Your task to perform on an android device: create a new album in the google photos Image 0: 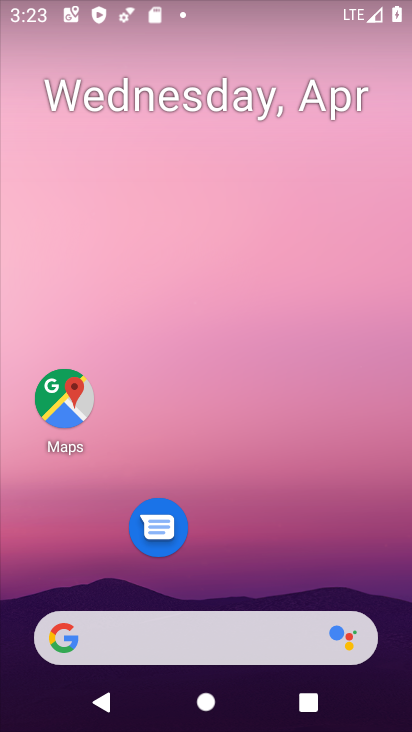
Step 0: drag from (222, 434) to (253, 101)
Your task to perform on an android device: create a new album in the google photos Image 1: 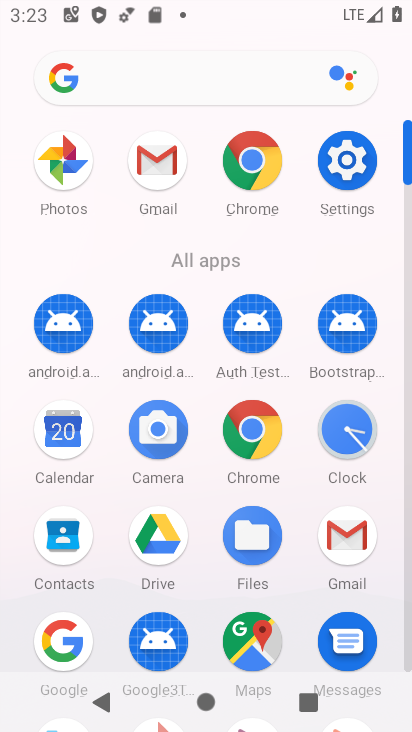
Step 1: click (67, 175)
Your task to perform on an android device: create a new album in the google photos Image 2: 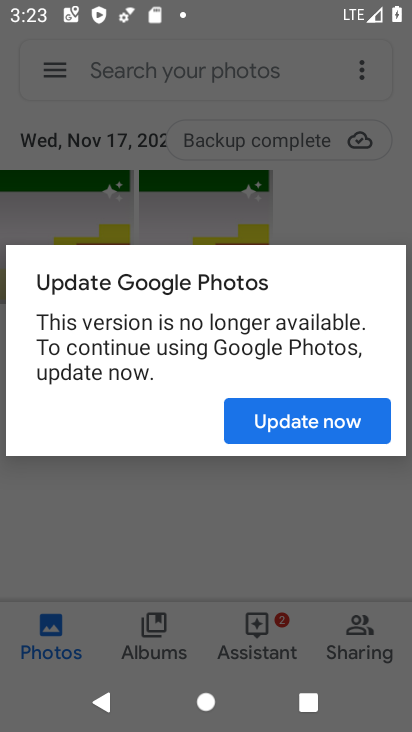
Step 2: click (274, 440)
Your task to perform on an android device: create a new album in the google photos Image 3: 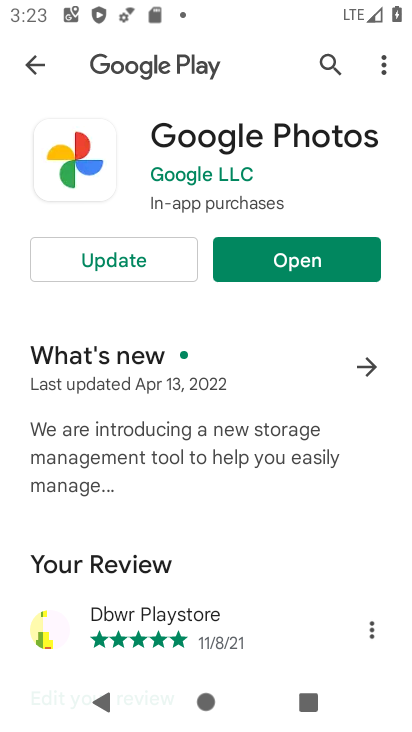
Step 3: click (138, 273)
Your task to perform on an android device: create a new album in the google photos Image 4: 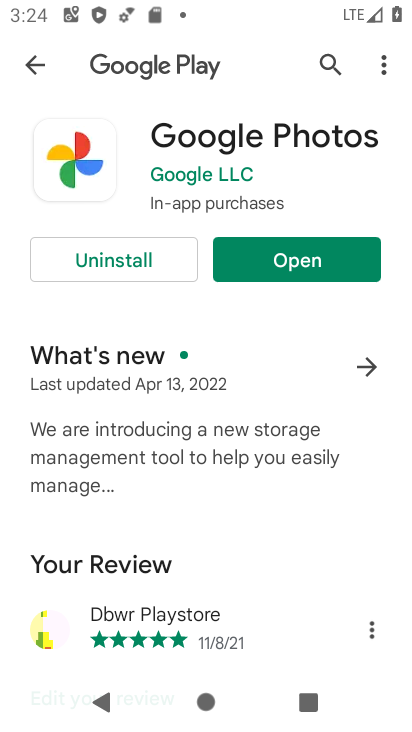
Step 4: click (296, 262)
Your task to perform on an android device: create a new album in the google photos Image 5: 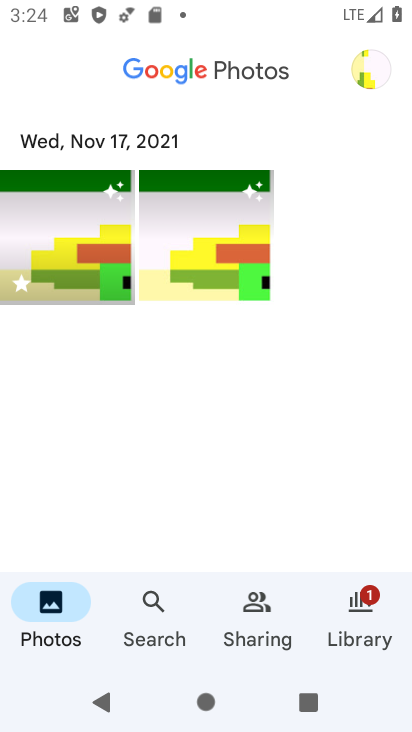
Step 5: click (371, 69)
Your task to perform on an android device: create a new album in the google photos Image 6: 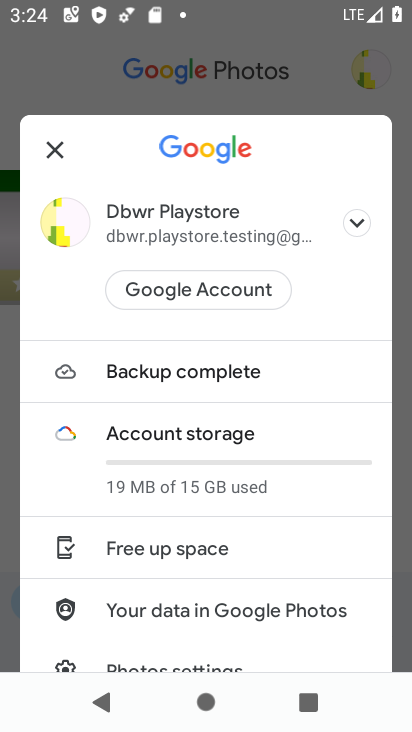
Step 6: task complete